Your task to perform on an android device: Search for pizza restaurants on Maps Image 0: 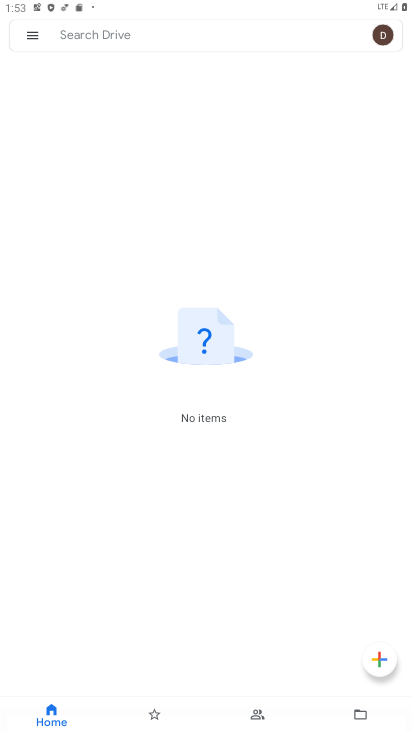
Step 0: press home button
Your task to perform on an android device: Search for pizza restaurants on Maps Image 1: 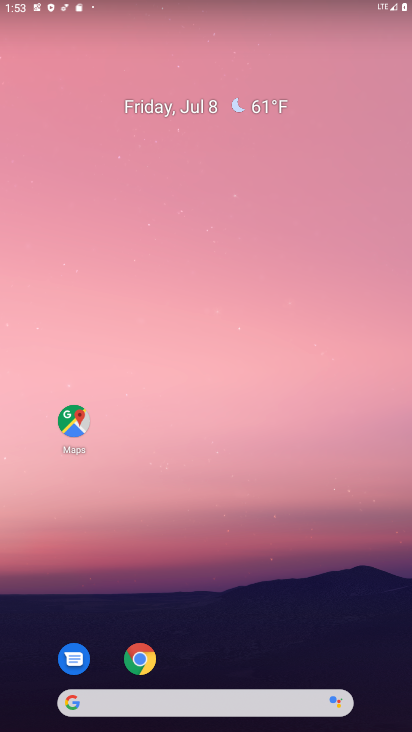
Step 1: drag from (224, 693) to (162, 101)
Your task to perform on an android device: Search for pizza restaurants on Maps Image 2: 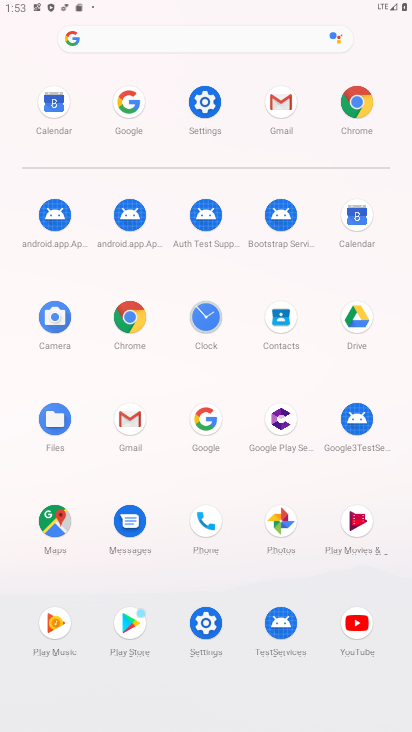
Step 2: click (55, 526)
Your task to perform on an android device: Search for pizza restaurants on Maps Image 3: 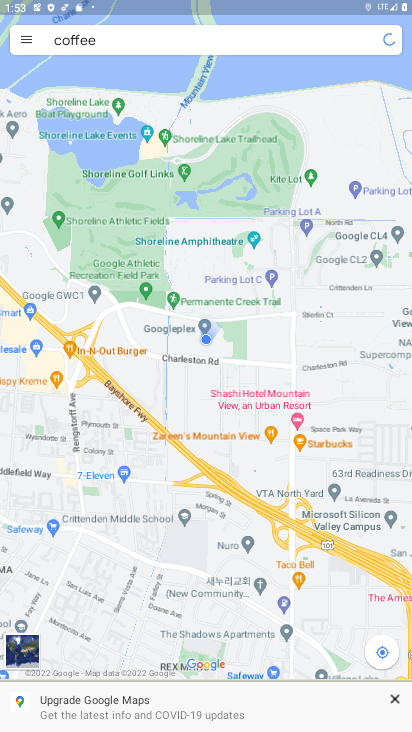
Step 3: click (277, 46)
Your task to perform on an android device: Search for pizza restaurants on Maps Image 4: 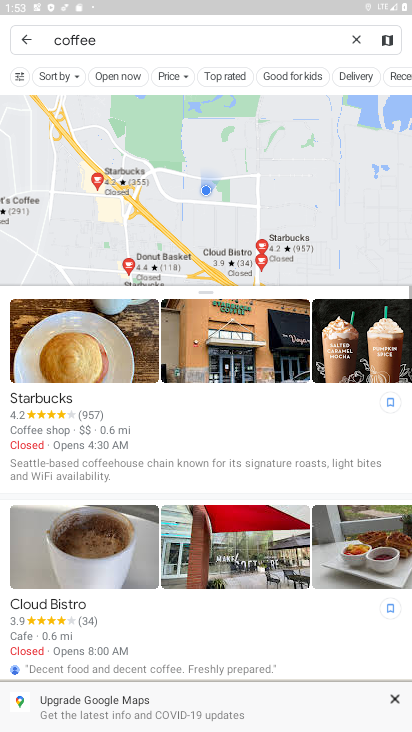
Step 4: click (350, 40)
Your task to perform on an android device: Search for pizza restaurants on Maps Image 5: 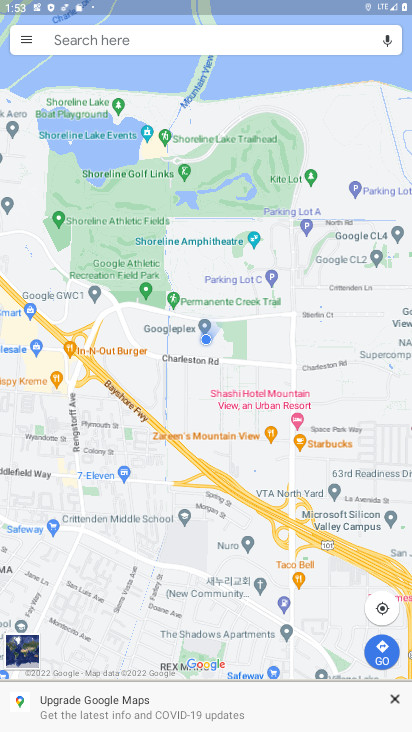
Step 5: type "pizza restaurants"
Your task to perform on an android device: Search for pizza restaurants on Maps Image 6: 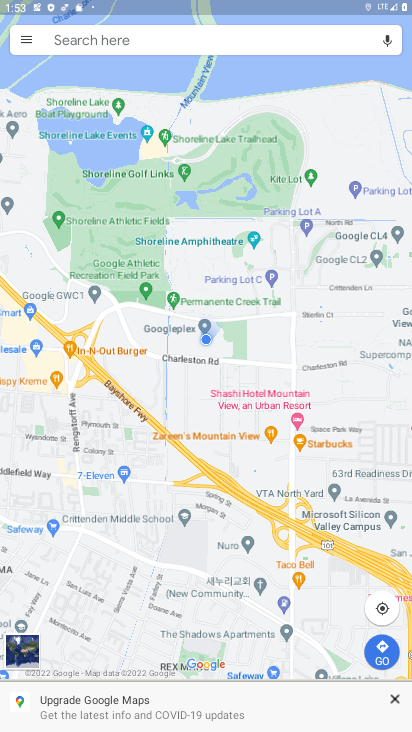
Step 6: click (205, 33)
Your task to perform on an android device: Search for pizza restaurants on Maps Image 7: 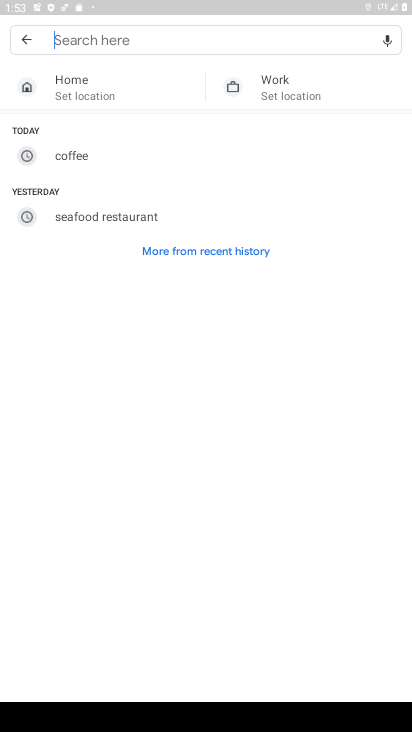
Step 7: type "pizza restaurants"
Your task to perform on an android device: Search for pizza restaurants on Maps Image 8: 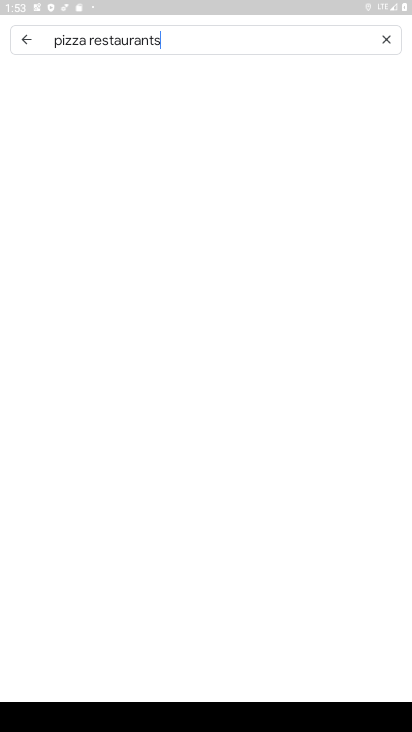
Step 8: type ""
Your task to perform on an android device: Search for pizza restaurants on Maps Image 9: 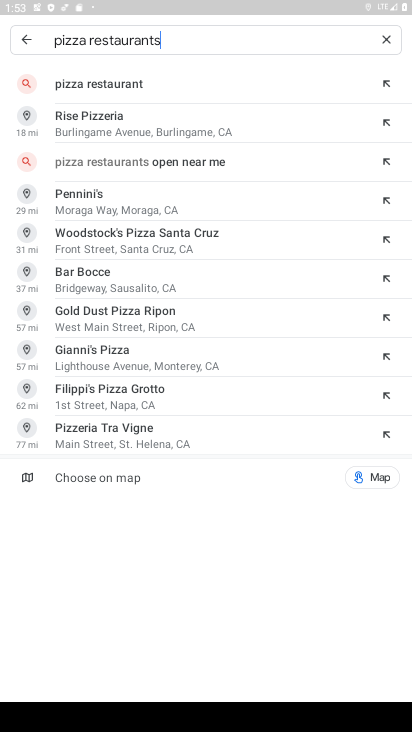
Step 9: click (126, 90)
Your task to perform on an android device: Search for pizza restaurants on Maps Image 10: 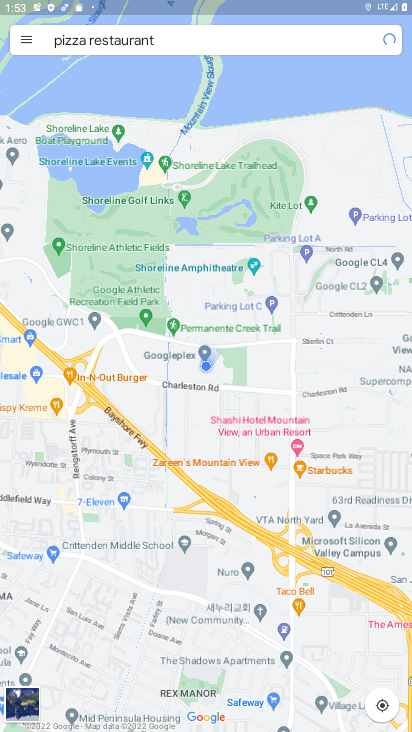
Step 10: task complete